Your task to perform on an android device: uninstall "YouTube Kids" Image 0: 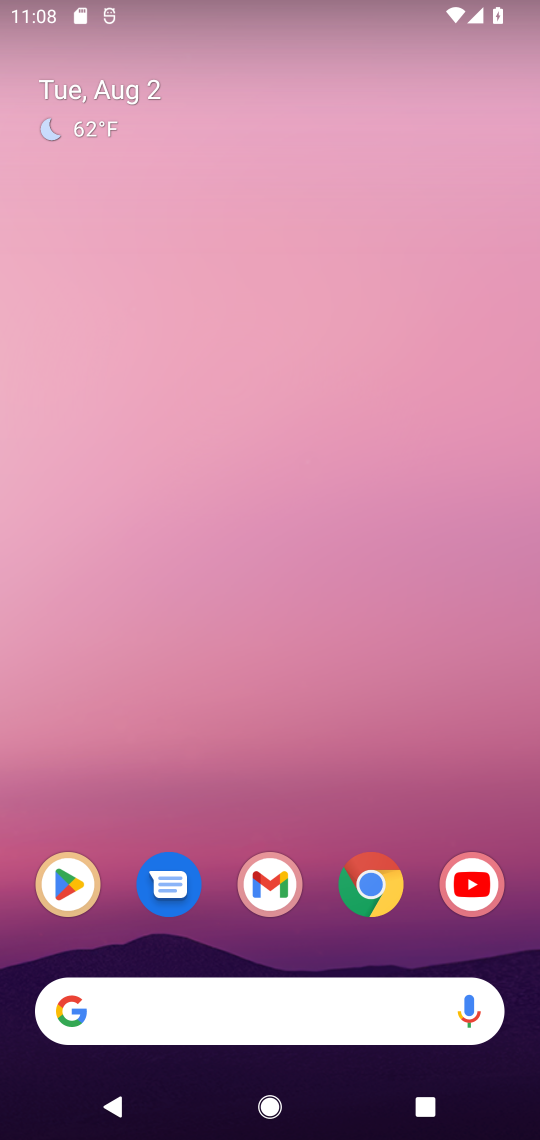
Step 0: click (70, 892)
Your task to perform on an android device: uninstall "YouTube Kids" Image 1: 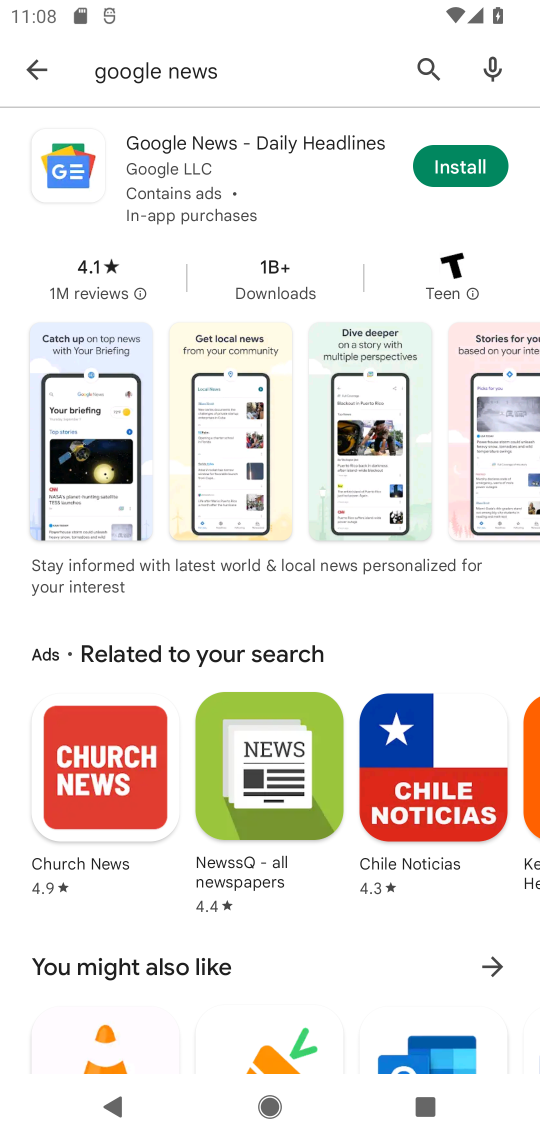
Step 1: click (204, 75)
Your task to perform on an android device: uninstall "YouTube Kids" Image 2: 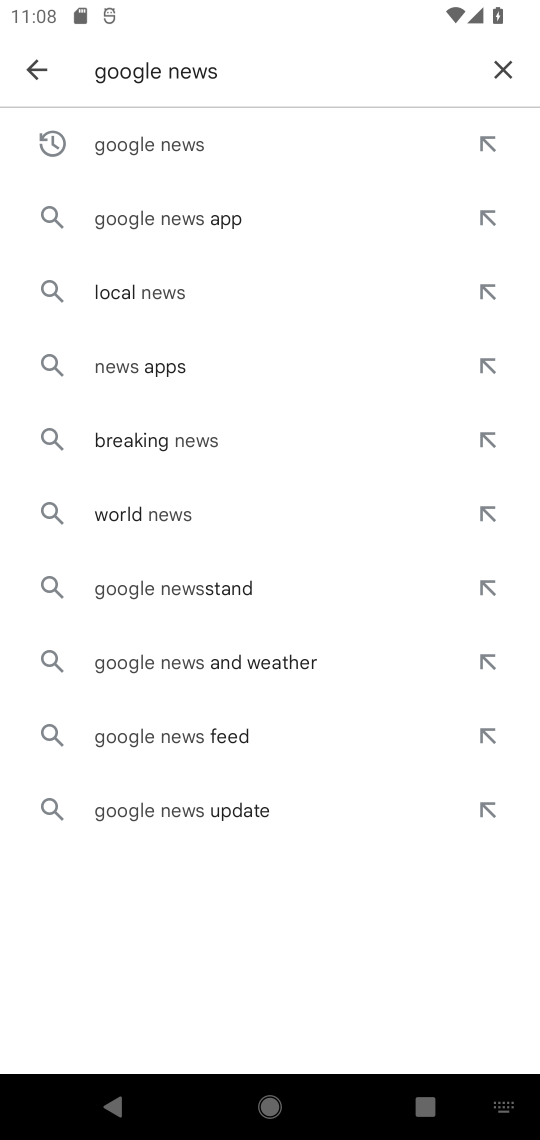
Step 2: click (507, 77)
Your task to perform on an android device: uninstall "YouTube Kids" Image 3: 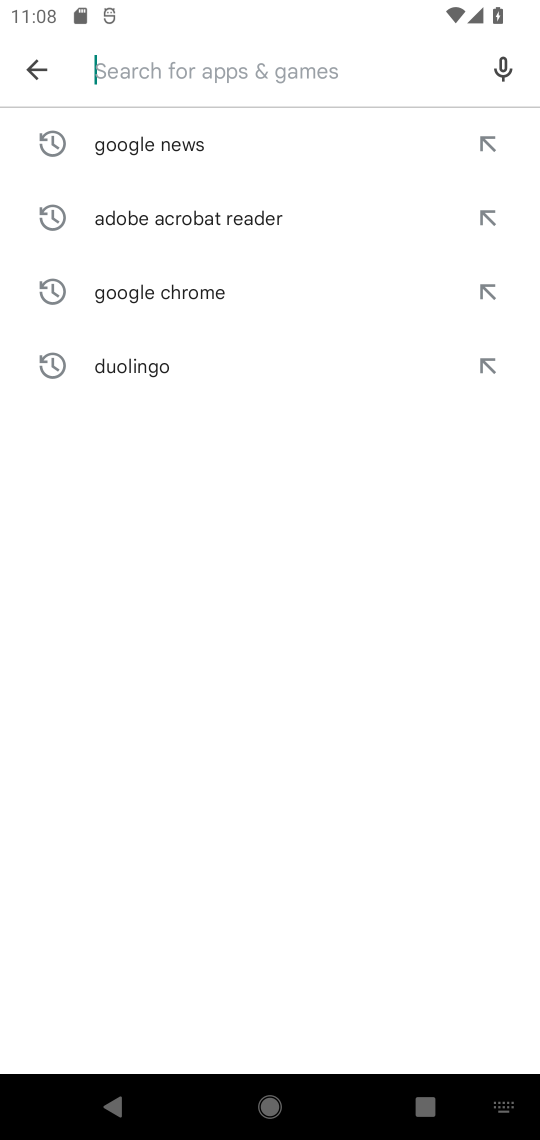
Step 3: type "youtube kids"
Your task to perform on an android device: uninstall "YouTube Kids" Image 4: 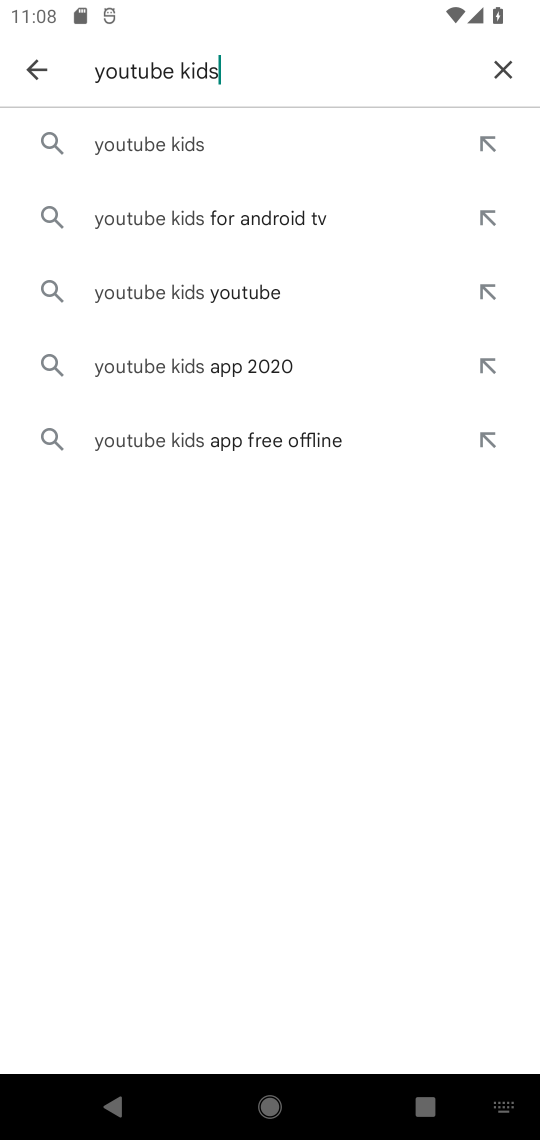
Step 4: click (192, 144)
Your task to perform on an android device: uninstall "YouTube Kids" Image 5: 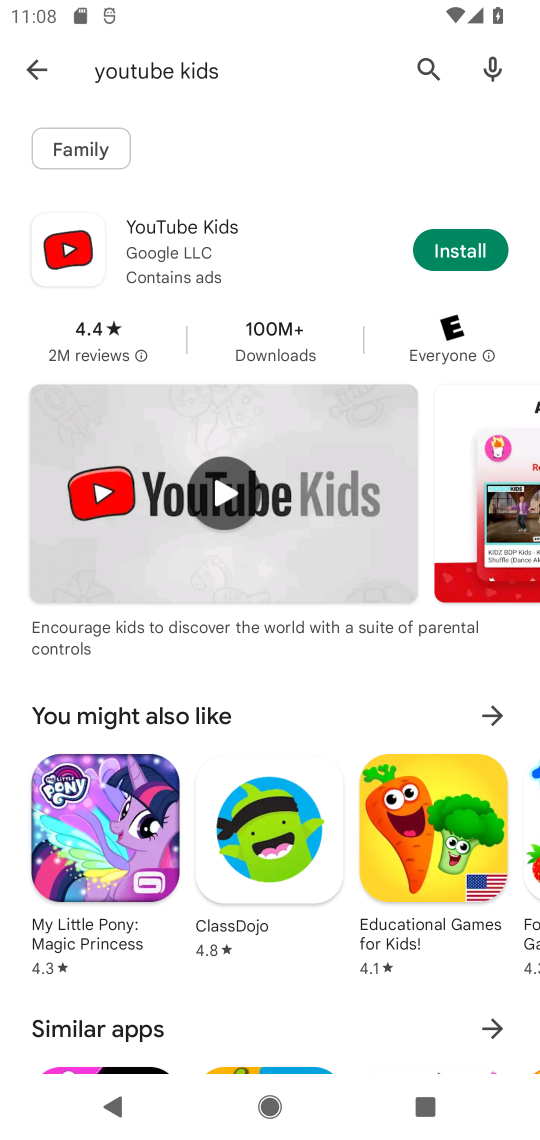
Step 5: task complete